Your task to perform on an android device: Go to Wikipedia Image 0: 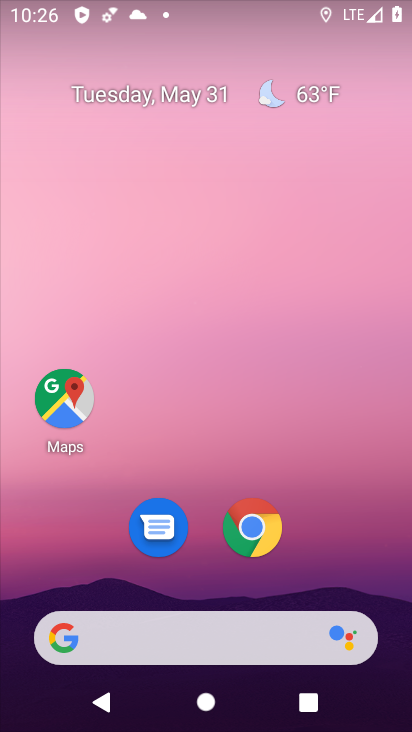
Step 0: click (263, 518)
Your task to perform on an android device: Go to Wikipedia Image 1: 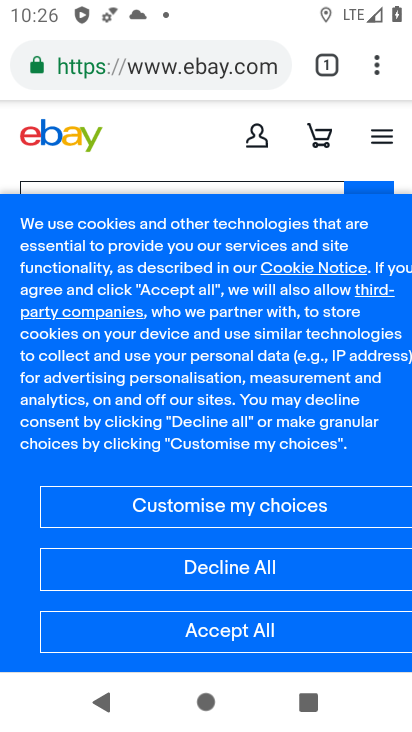
Step 1: click (323, 69)
Your task to perform on an android device: Go to Wikipedia Image 2: 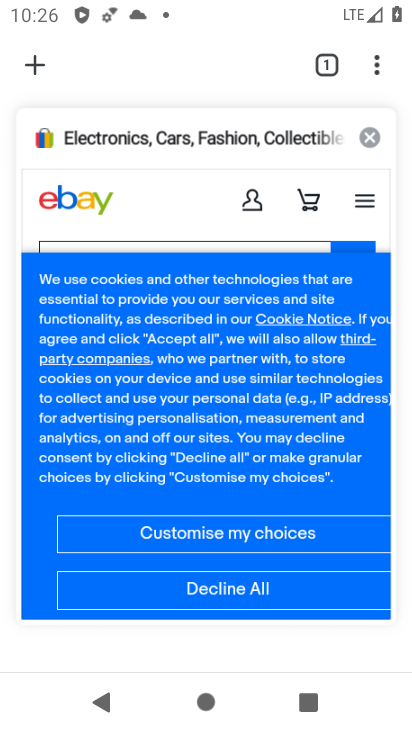
Step 2: click (31, 77)
Your task to perform on an android device: Go to Wikipedia Image 3: 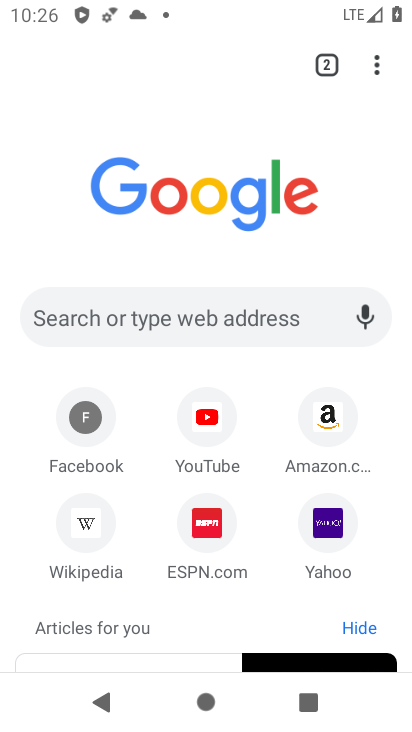
Step 3: click (96, 538)
Your task to perform on an android device: Go to Wikipedia Image 4: 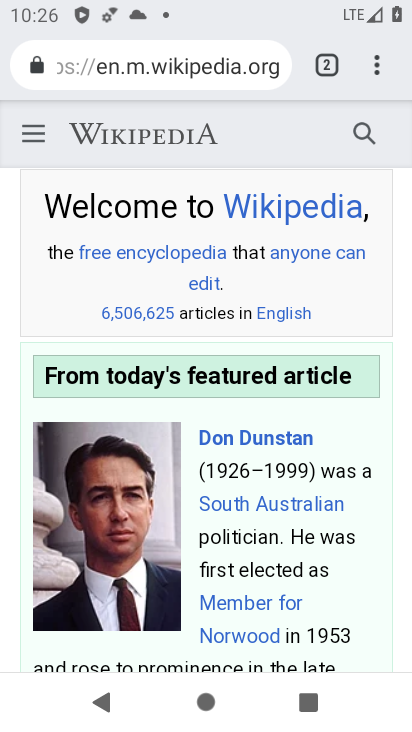
Step 4: task complete